Your task to perform on an android device: open chrome privacy settings Image 0: 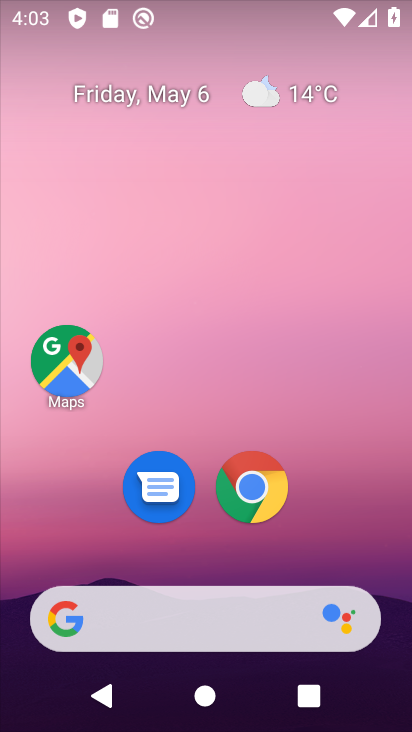
Step 0: drag from (217, 579) to (265, 35)
Your task to perform on an android device: open chrome privacy settings Image 1: 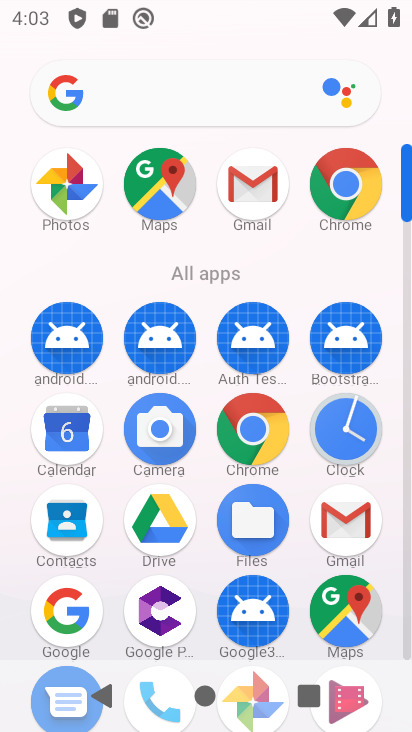
Step 1: drag from (200, 580) to (159, 76)
Your task to perform on an android device: open chrome privacy settings Image 2: 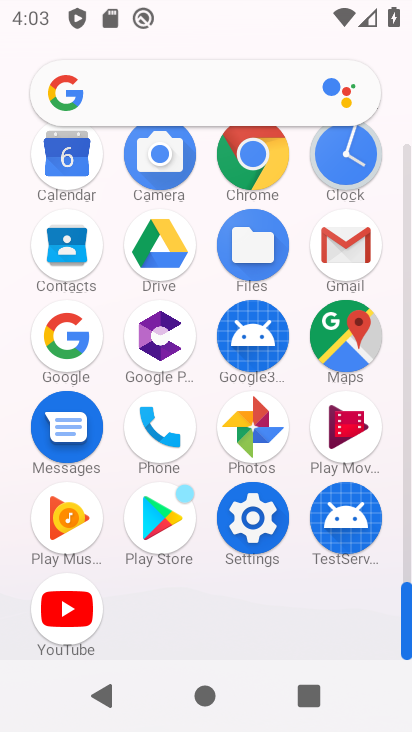
Step 2: click (246, 530)
Your task to perform on an android device: open chrome privacy settings Image 3: 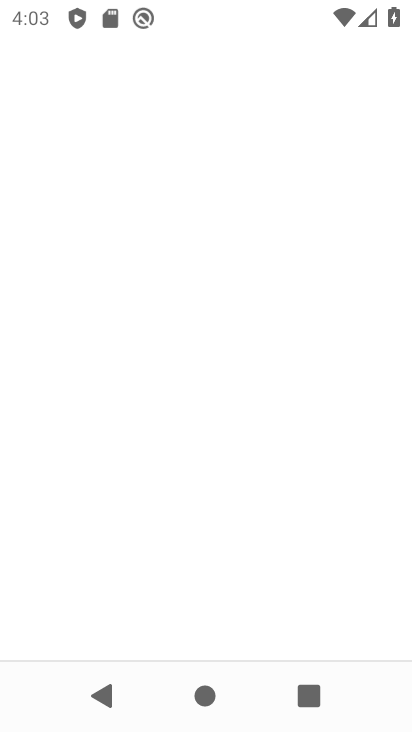
Step 3: press home button
Your task to perform on an android device: open chrome privacy settings Image 4: 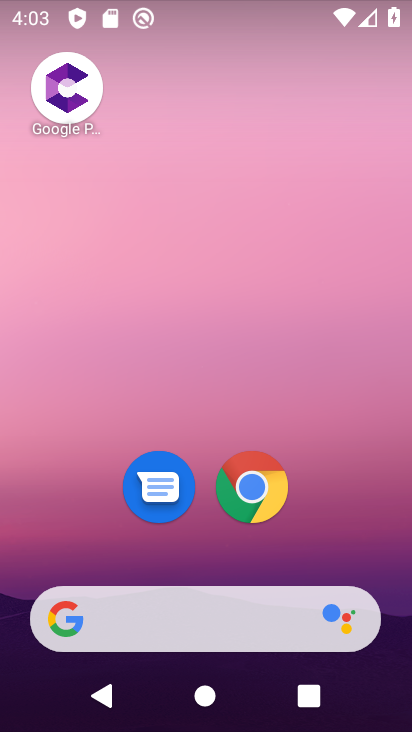
Step 4: click (251, 497)
Your task to perform on an android device: open chrome privacy settings Image 5: 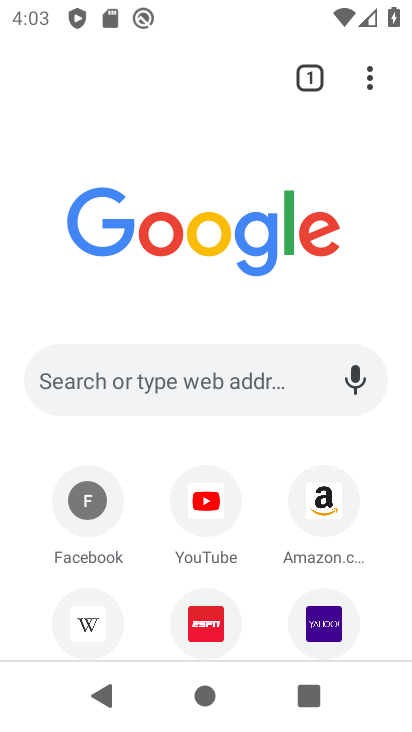
Step 5: click (365, 77)
Your task to perform on an android device: open chrome privacy settings Image 6: 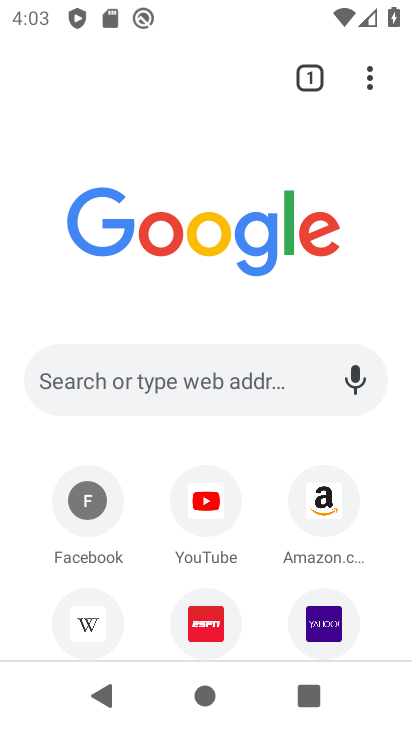
Step 6: drag from (369, 77) to (113, 558)
Your task to perform on an android device: open chrome privacy settings Image 7: 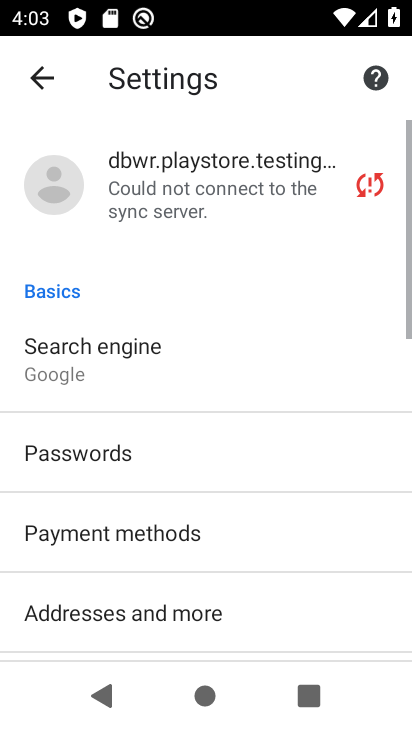
Step 7: drag from (144, 607) to (106, 126)
Your task to perform on an android device: open chrome privacy settings Image 8: 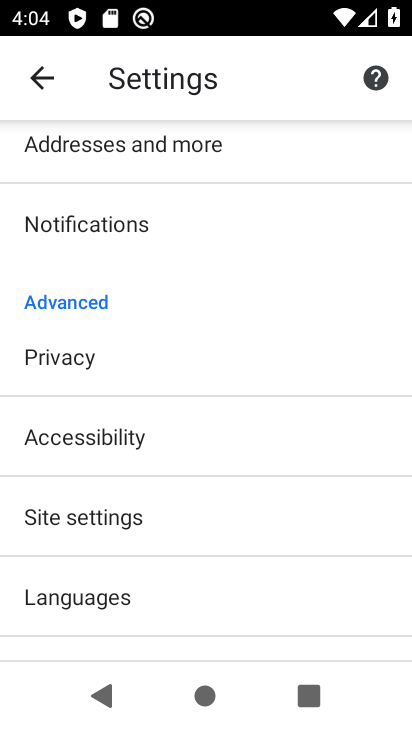
Step 8: click (76, 368)
Your task to perform on an android device: open chrome privacy settings Image 9: 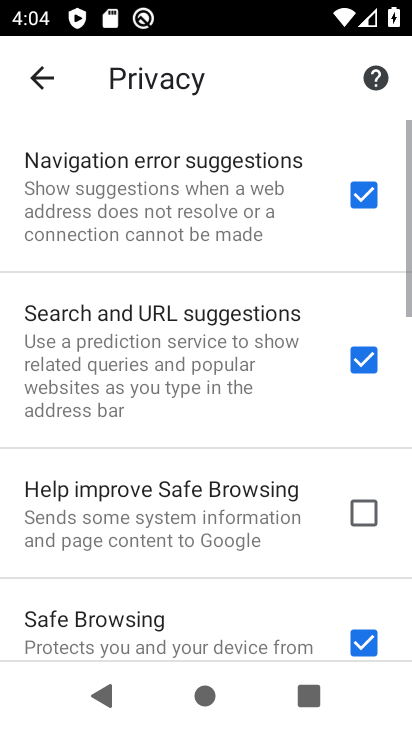
Step 9: task complete